Your task to perform on an android device: What's on my calendar today? Image 0: 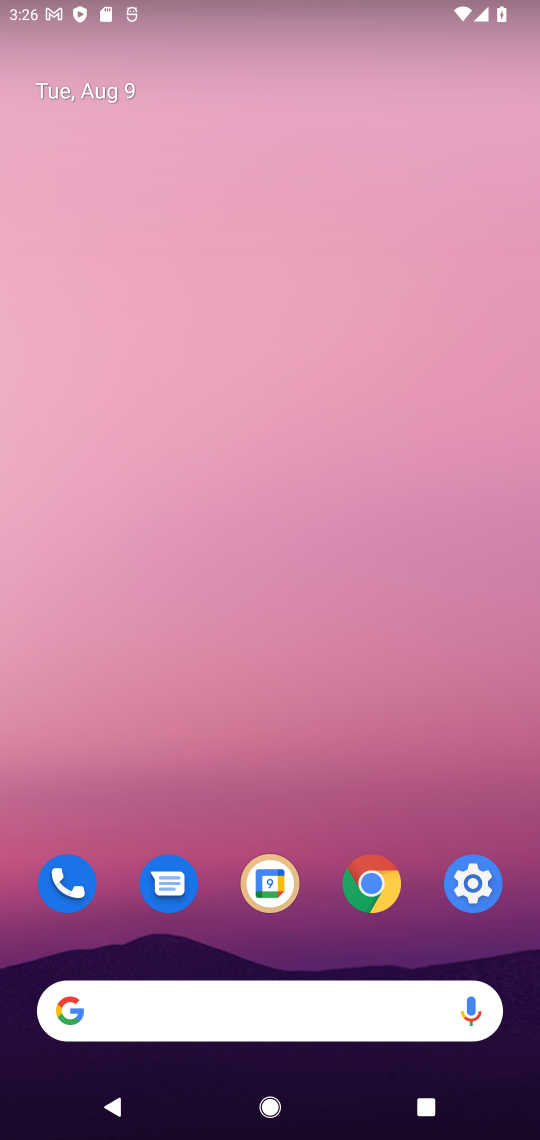
Step 0: drag from (352, 1038) to (239, 407)
Your task to perform on an android device: What's on my calendar today? Image 1: 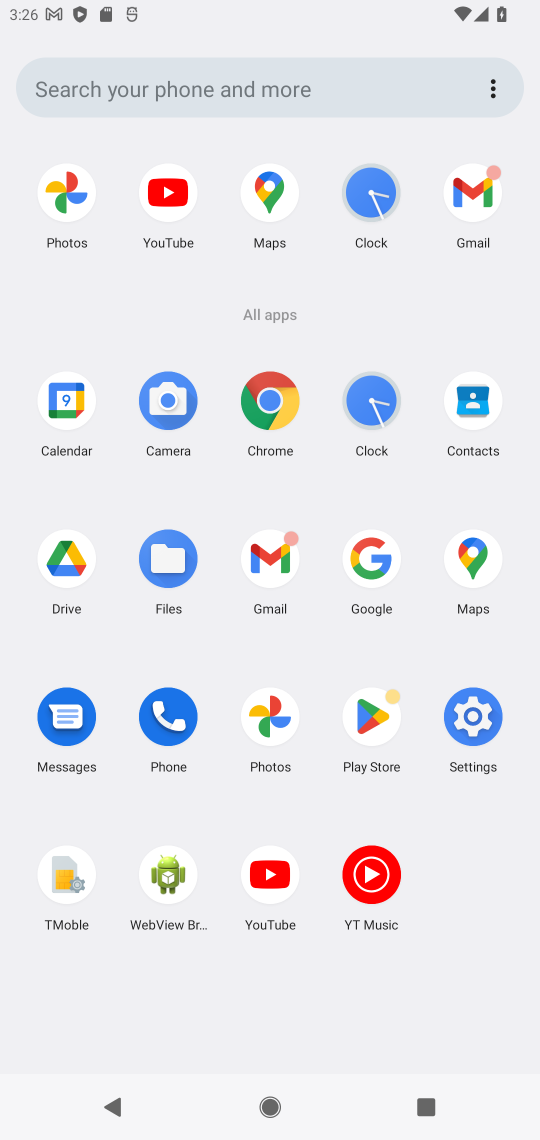
Step 1: click (75, 422)
Your task to perform on an android device: What's on my calendar today? Image 2: 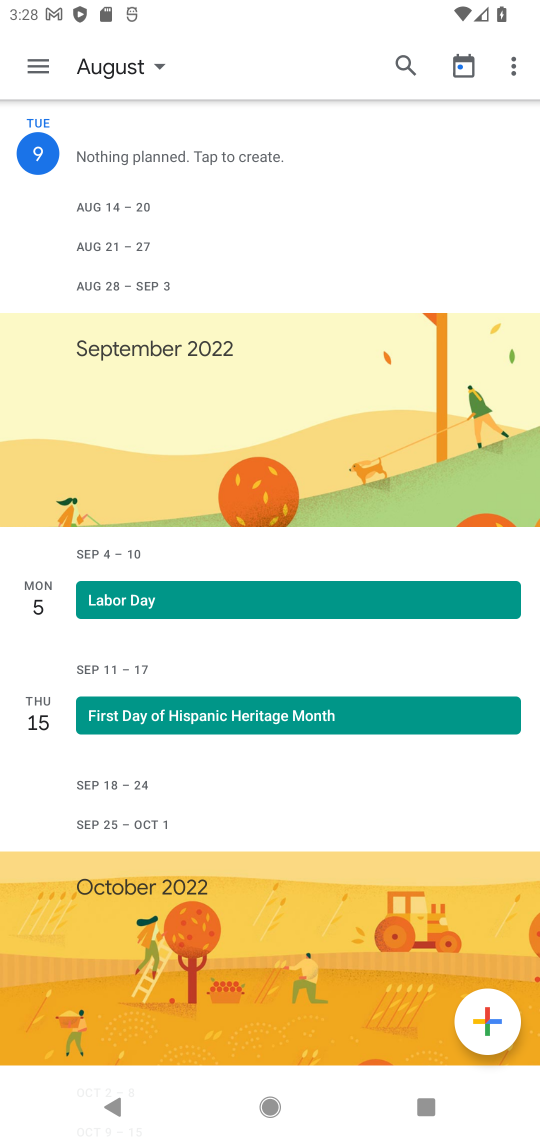
Step 2: task complete